Your task to perform on an android device: open app "eBay: The shopping marketplace" (install if not already installed) Image 0: 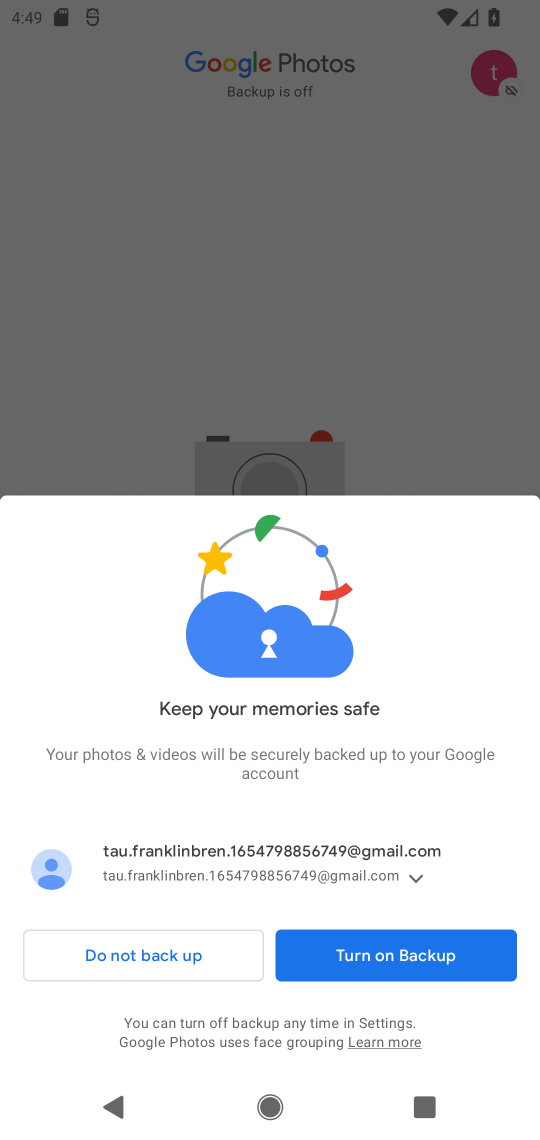
Step 0: press home button
Your task to perform on an android device: open app "eBay: The shopping marketplace" (install if not already installed) Image 1: 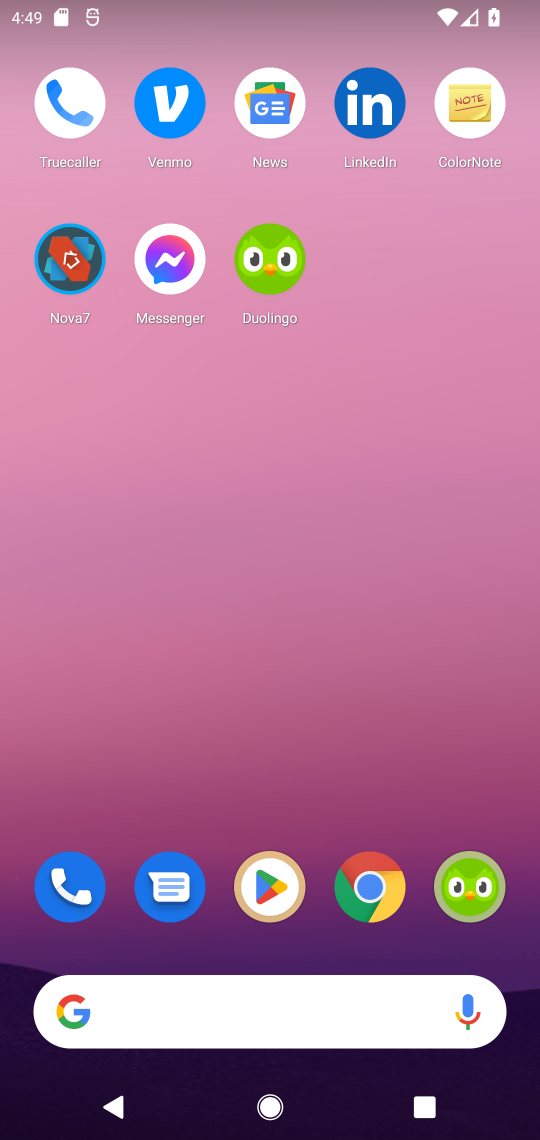
Step 1: click (265, 878)
Your task to perform on an android device: open app "eBay: The shopping marketplace" (install if not already installed) Image 2: 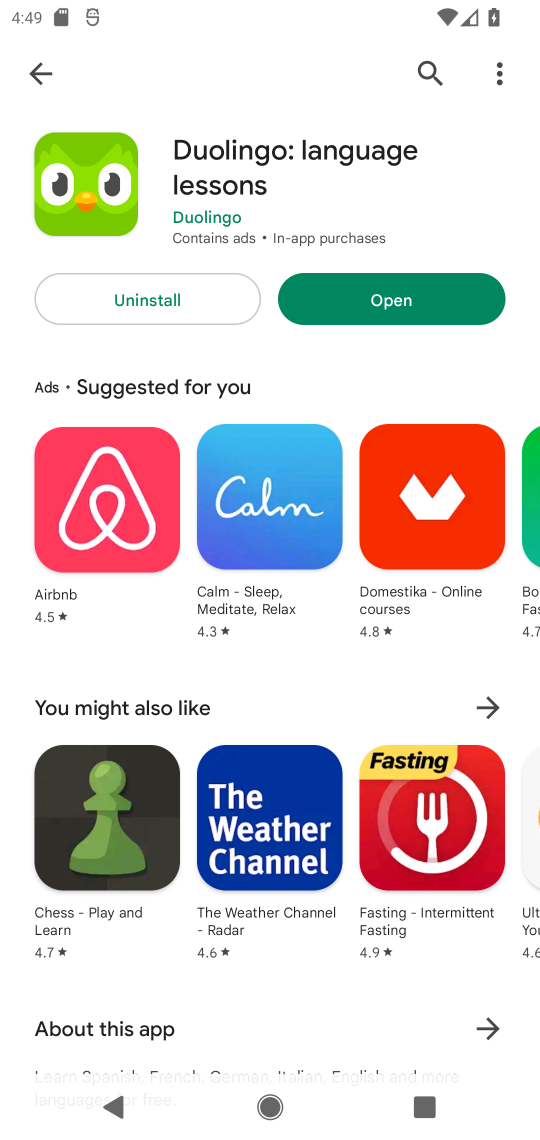
Step 2: click (36, 77)
Your task to perform on an android device: open app "eBay: The shopping marketplace" (install if not already installed) Image 3: 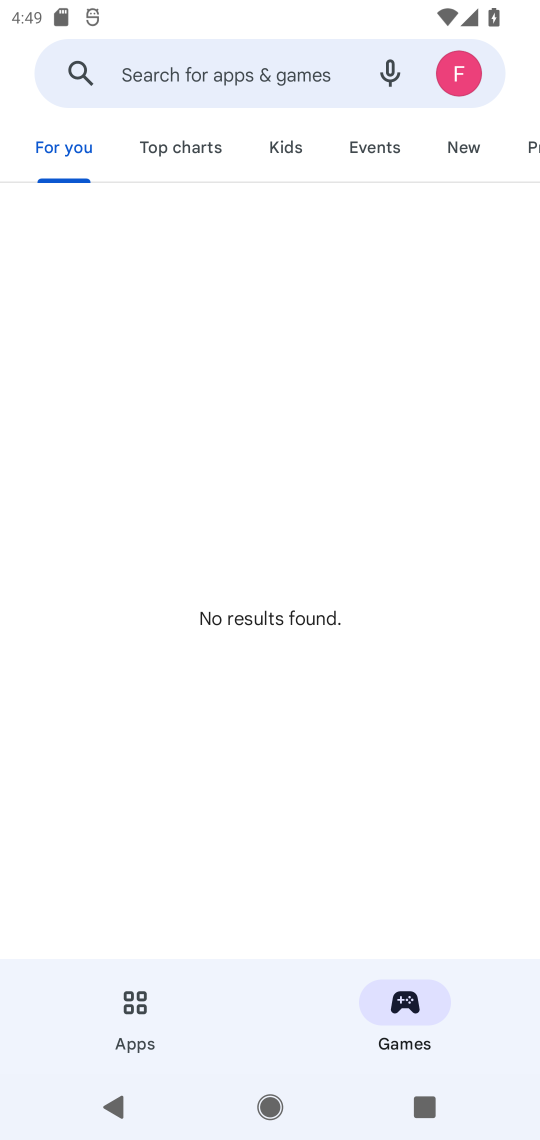
Step 3: click (191, 56)
Your task to perform on an android device: open app "eBay: The shopping marketplace" (install if not already installed) Image 4: 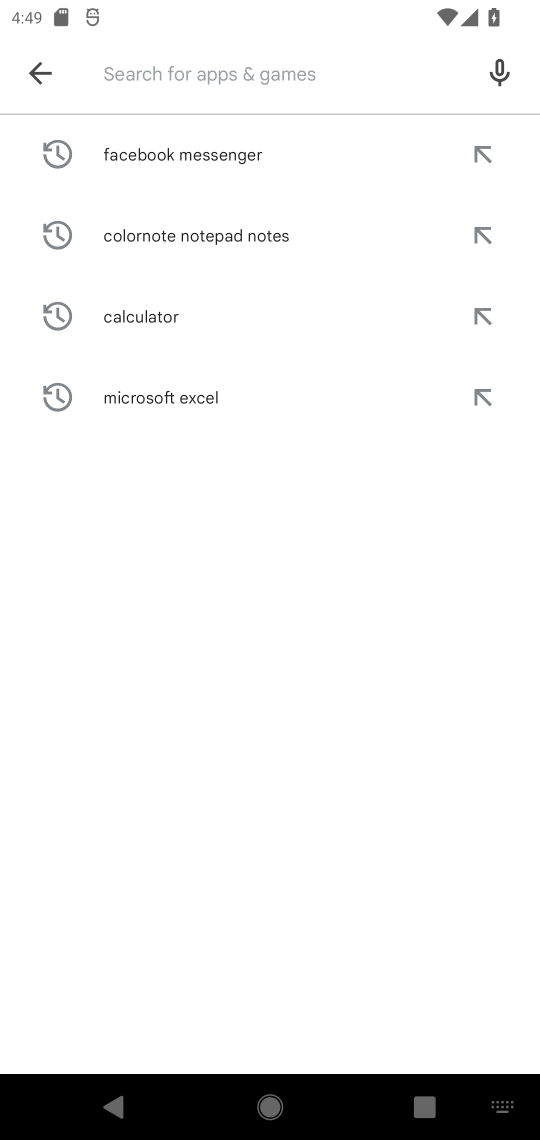
Step 4: type "eBay"
Your task to perform on an android device: open app "eBay: The shopping marketplace" (install if not already installed) Image 5: 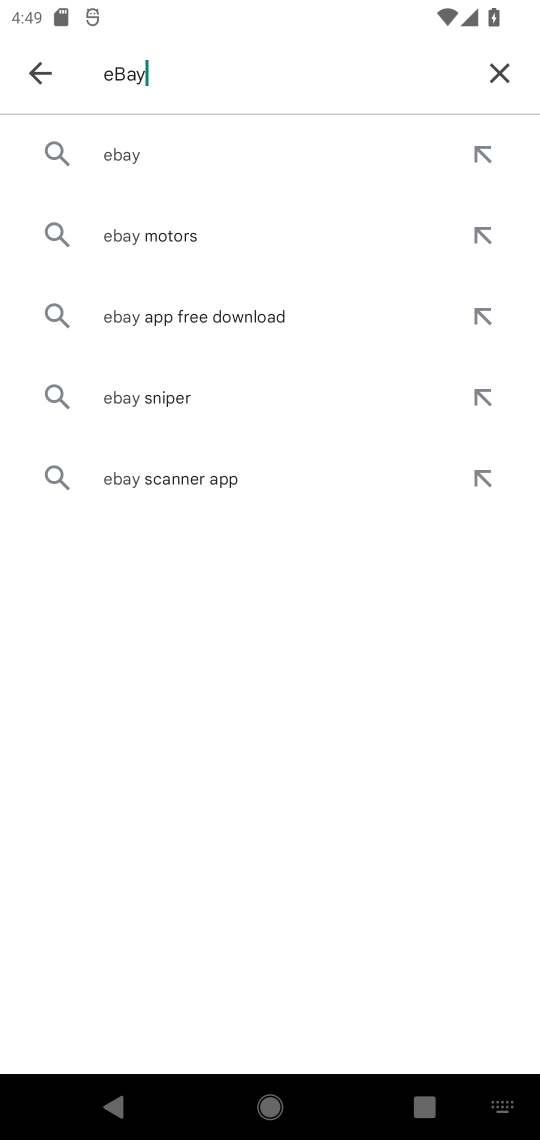
Step 5: click (112, 149)
Your task to perform on an android device: open app "eBay: The shopping marketplace" (install if not already installed) Image 6: 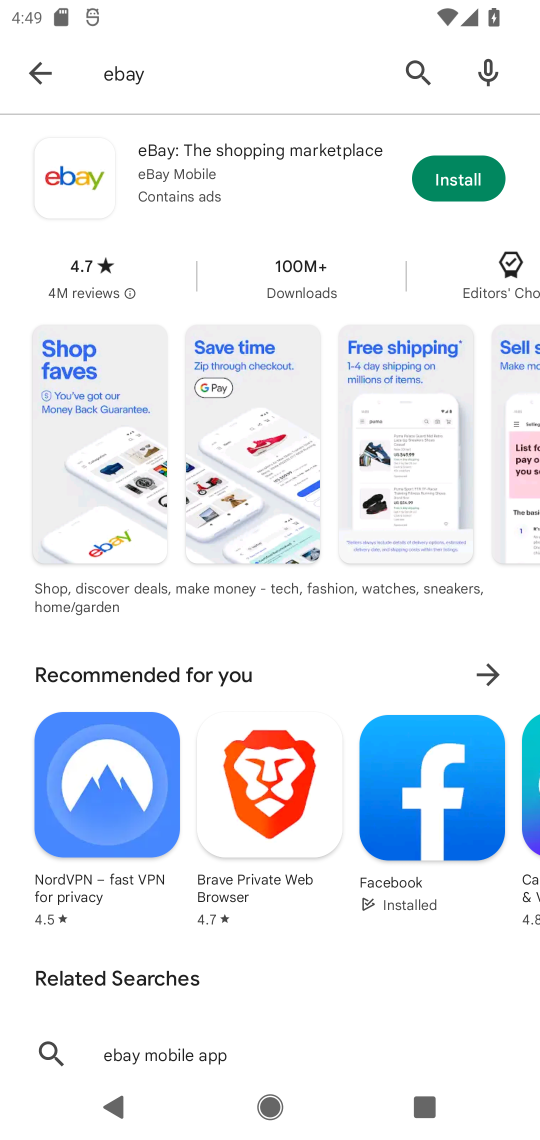
Step 6: click (448, 189)
Your task to perform on an android device: open app "eBay: The shopping marketplace" (install if not already installed) Image 7: 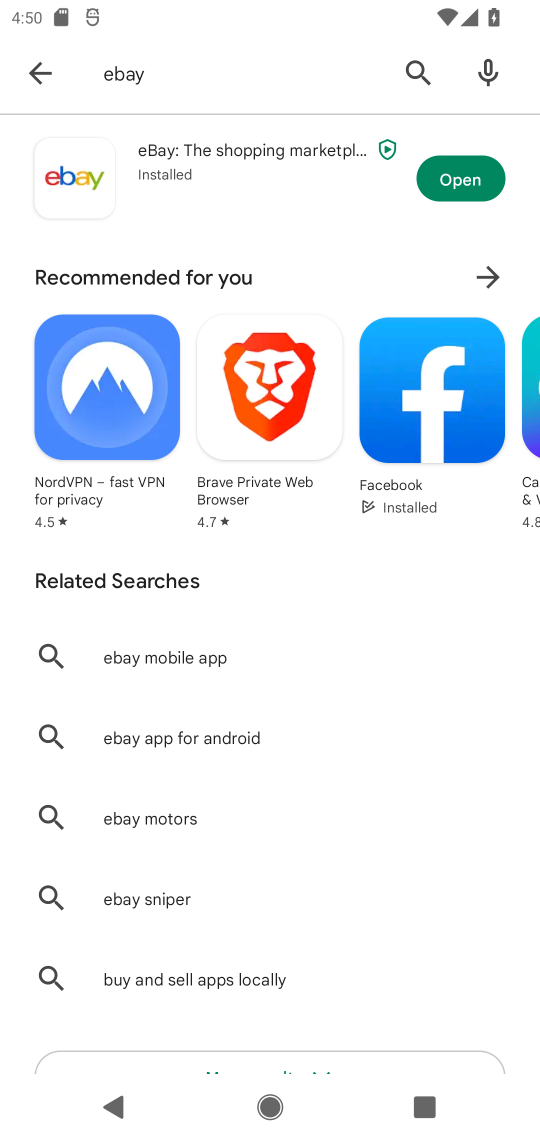
Step 7: click (448, 189)
Your task to perform on an android device: open app "eBay: The shopping marketplace" (install if not already installed) Image 8: 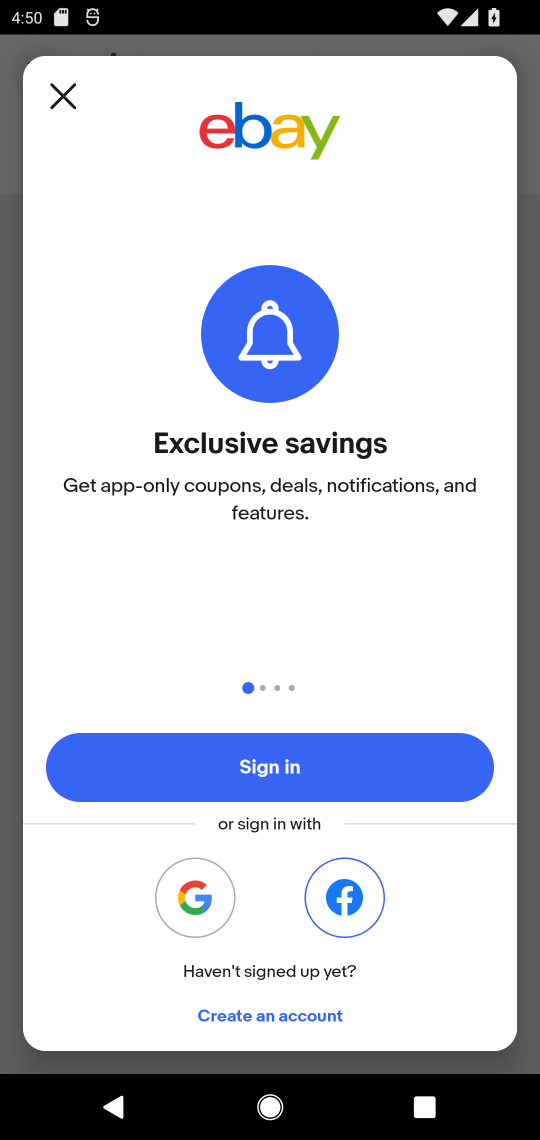
Step 8: task complete